Your task to perform on an android device: Show me the best 1080p monitor on Target.com Image 0: 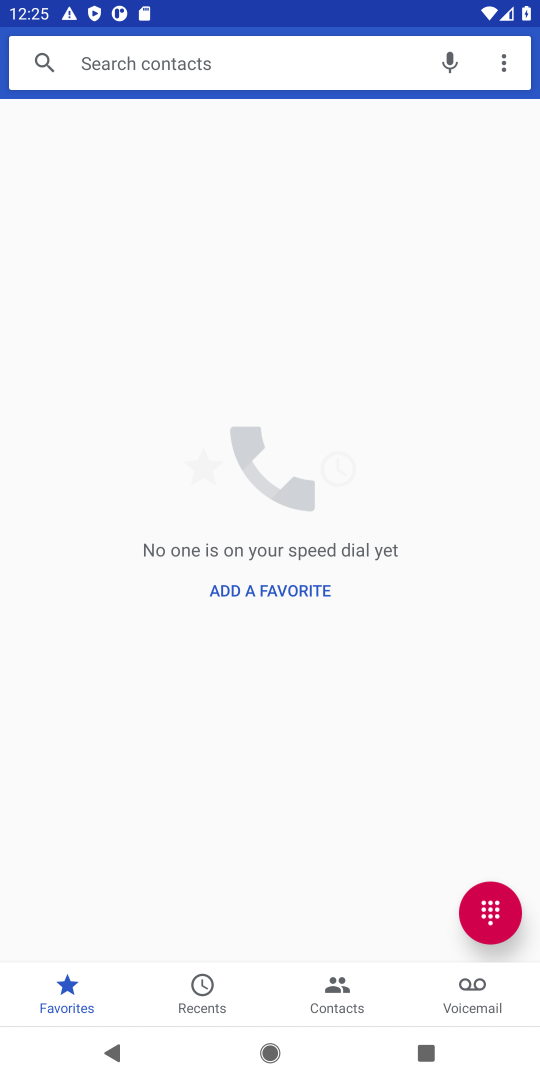
Step 0: press home button
Your task to perform on an android device: Show me the best 1080p monitor on Target.com Image 1: 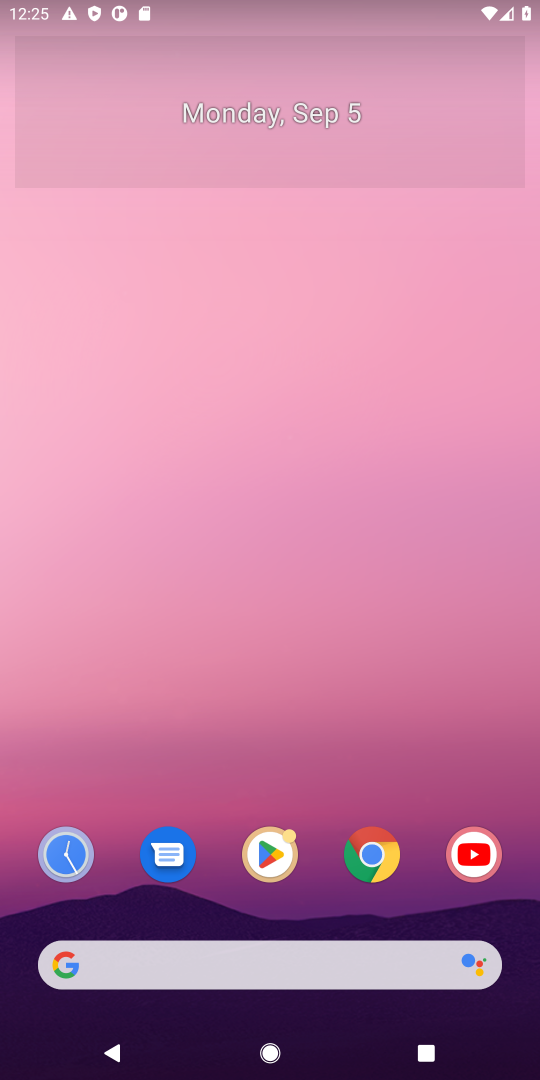
Step 1: click (281, 960)
Your task to perform on an android device: Show me the best 1080p monitor on Target.com Image 2: 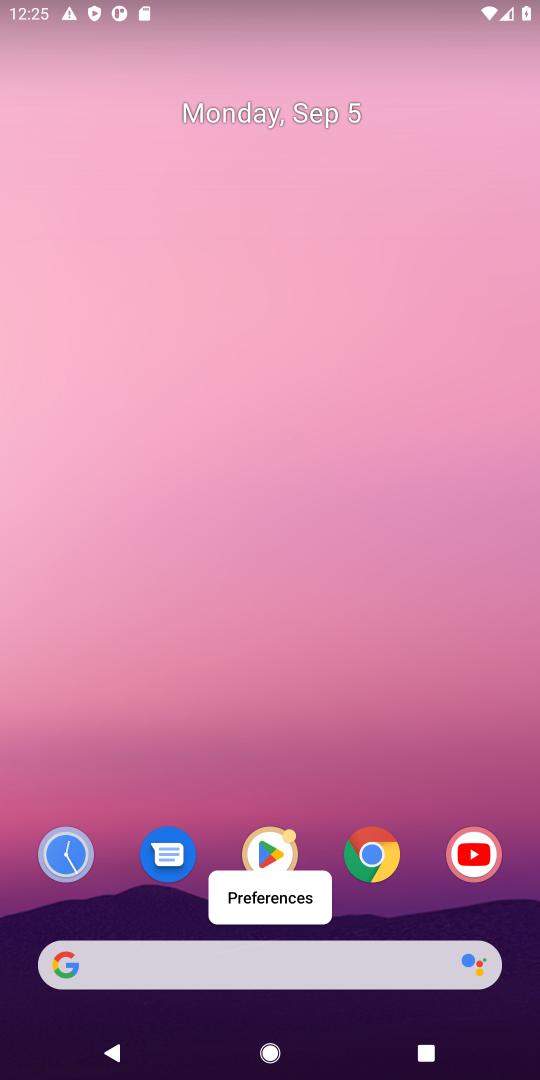
Step 2: click (160, 970)
Your task to perform on an android device: Show me the best 1080p monitor on Target.com Image 3: 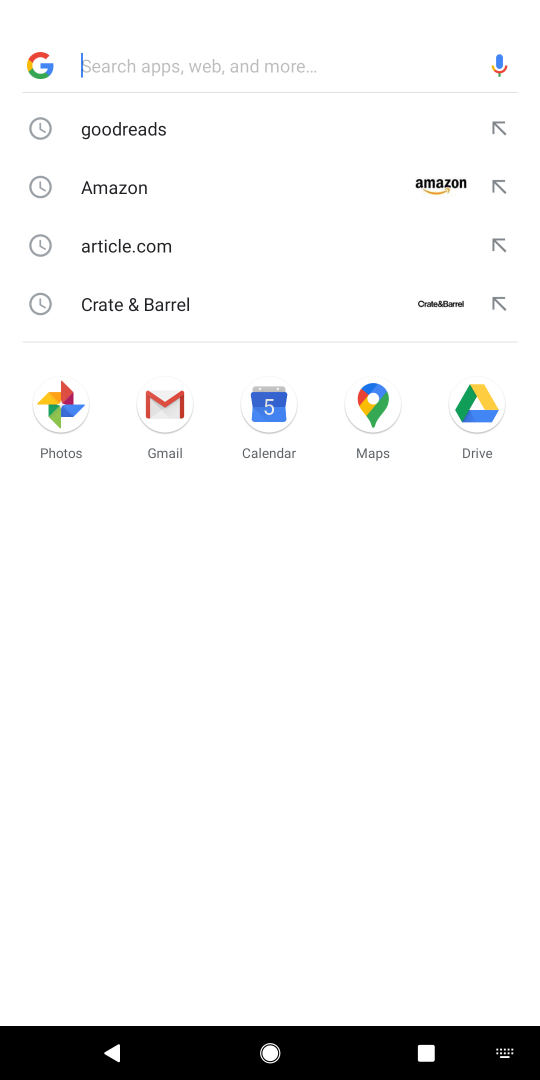
Step 3: press enter
Your task to perform on an android device: Show me the best 1080p monitor on Target.com Image 4: 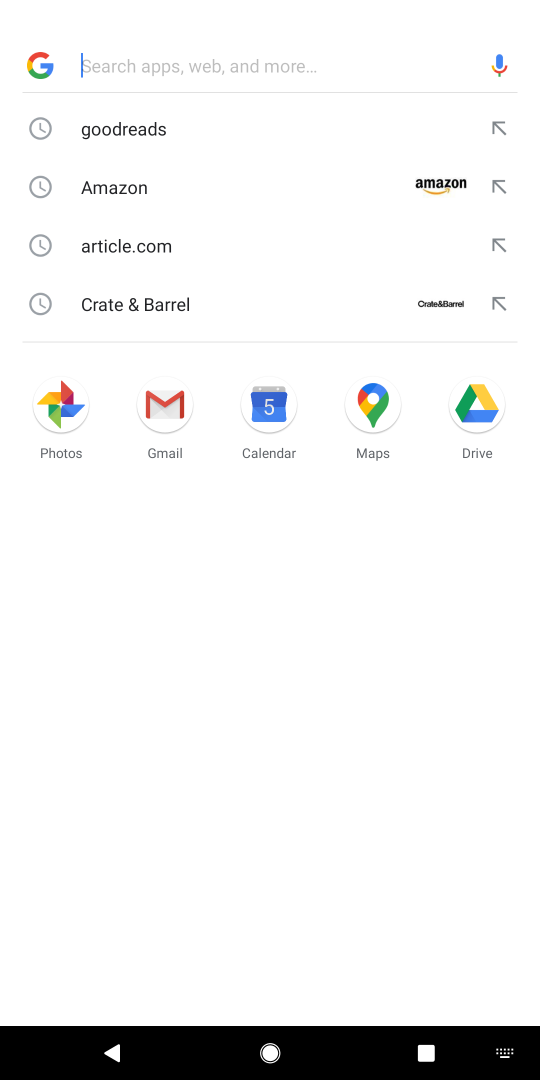
Step 4: type "target.com"
Your task to perform on an android device: Show me the best 1080p monitor on Target.com Image 5: 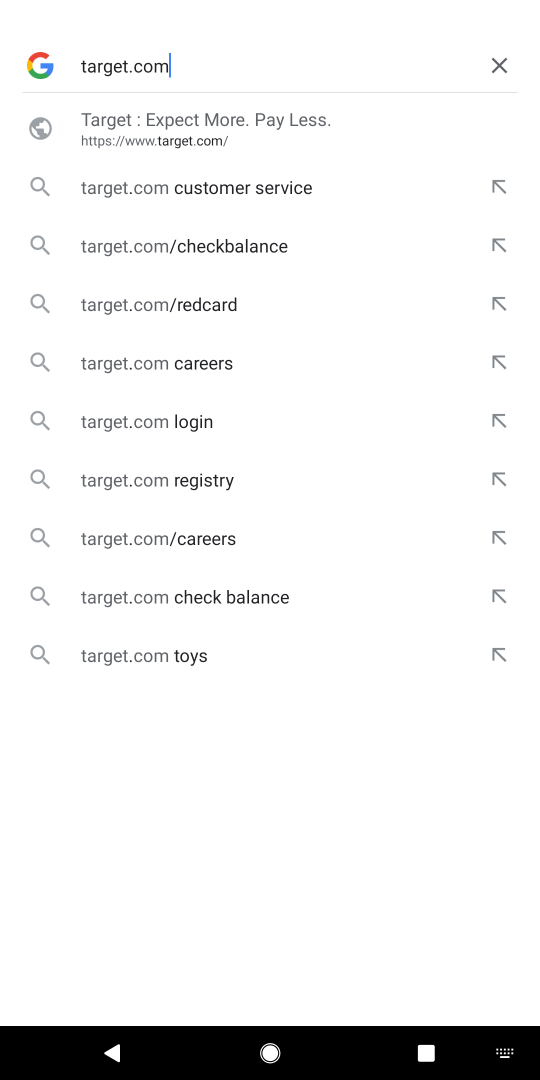
Step 5: click (154, 123)
Your task to perform on an android device: Show me the best 1080p monitor on Target.com Image 6: 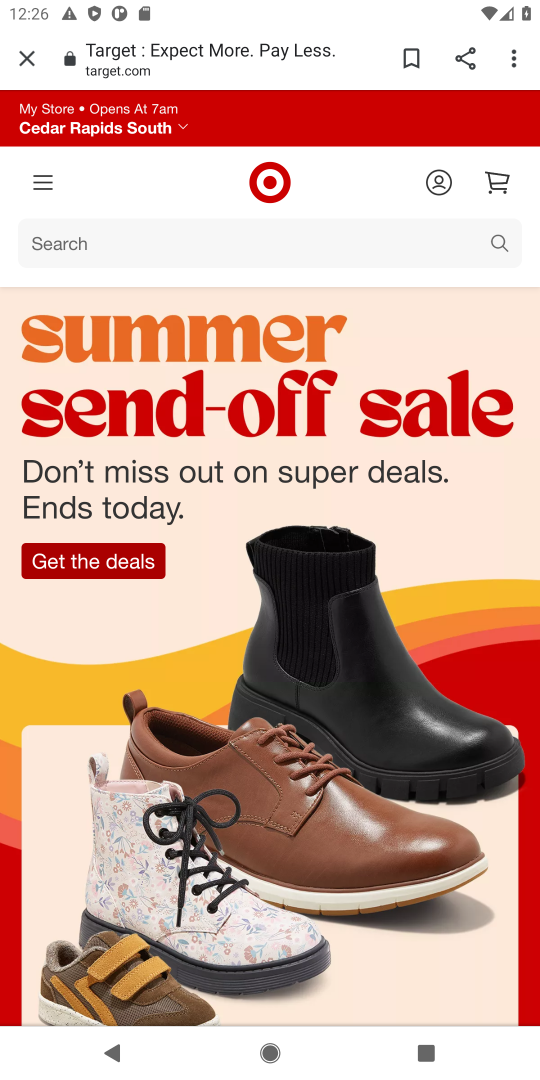
Step 6: click (81, 236)
Your task to perform on an android device: Show me the best 1080p monitor on Target.com Image 7: 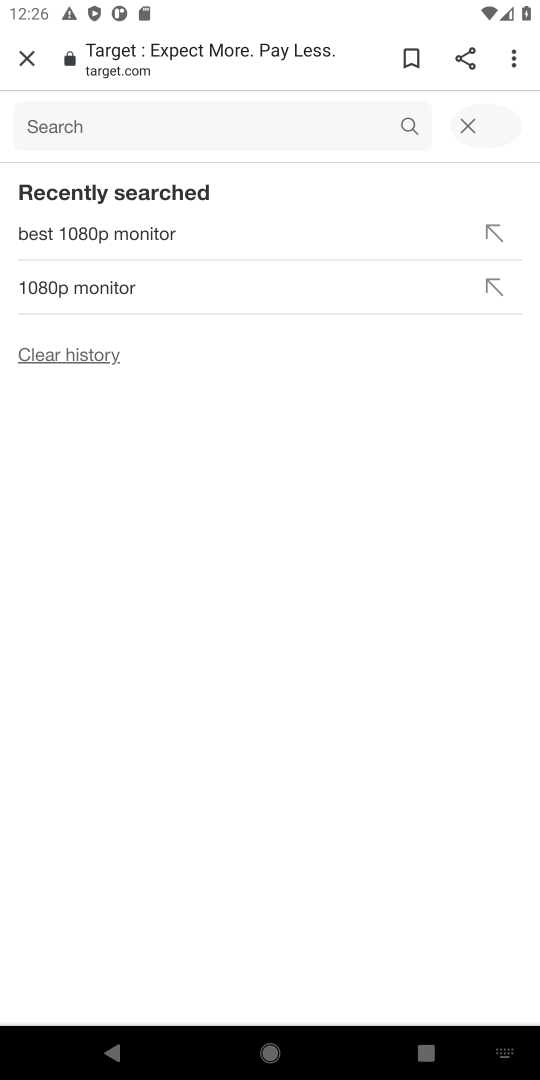
Step 7: click (177, 234)
Your task to perform on an android device: Show me the best 1080p monitor on Target.com Image 8: 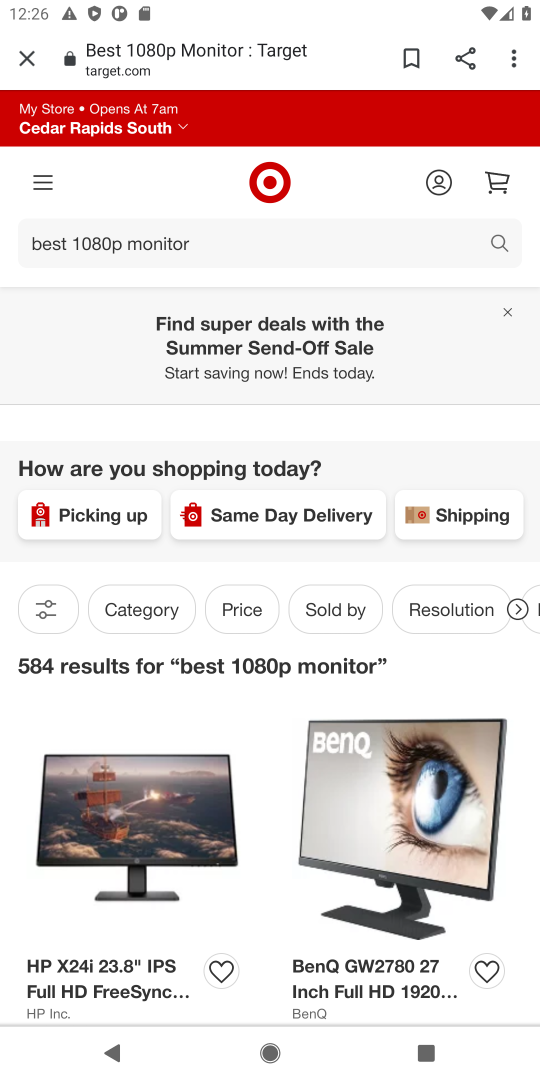
Step 8: task complete